Your task to perform on an android device: When is my next appointment? Image 0: 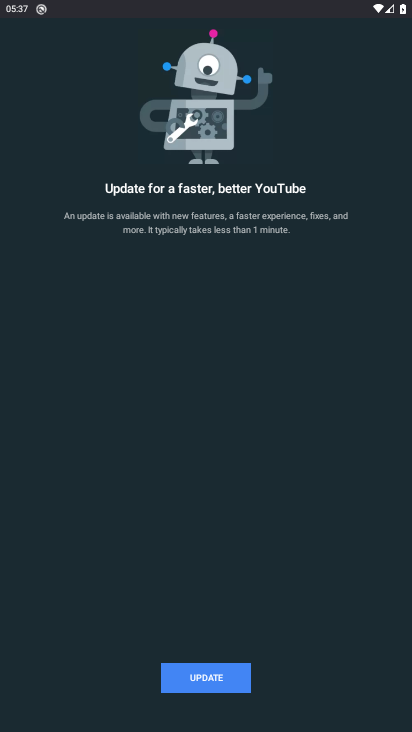
Step 0: press home button
Your task to perform on an android device: When is my next appointment? Image 1: 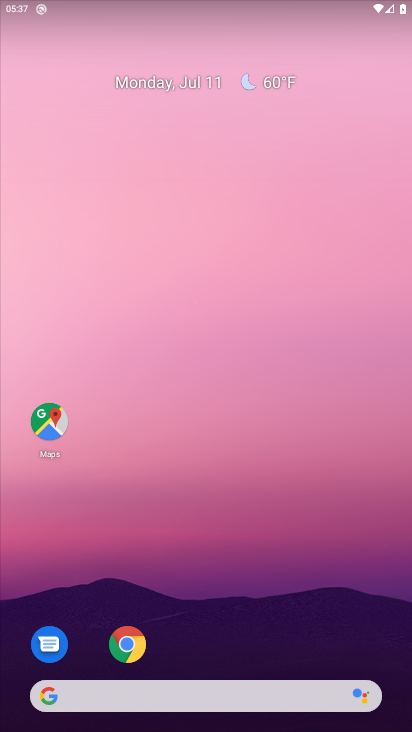
Step 1: drag from (179, 617) to (203, 448)
Your task to perform on an android device: When is my next appointment? Image 2: 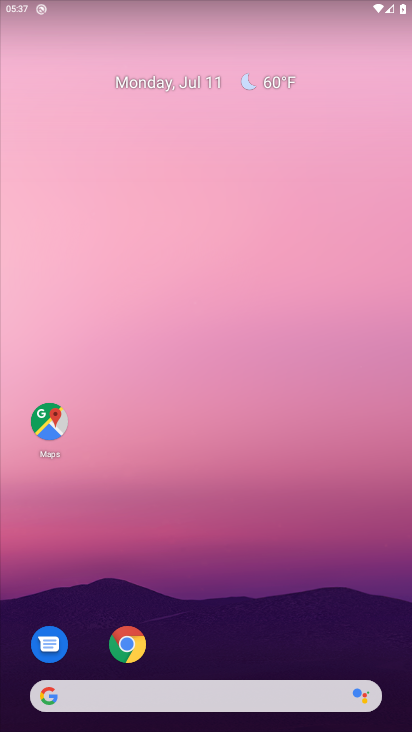
Step 2: drag from (240, 662) to (269, 281)
Your task to perform on an android device: When is my next appointment? Image 3: 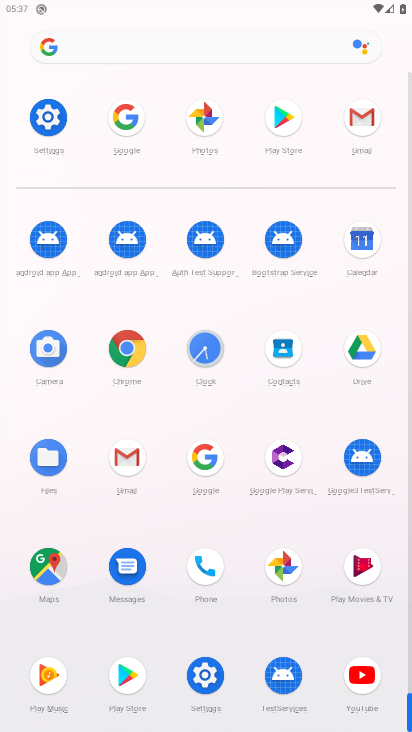
Step 3: click (369, 257)
Your task to perform on an android device: When is my next appointment? Image 4: 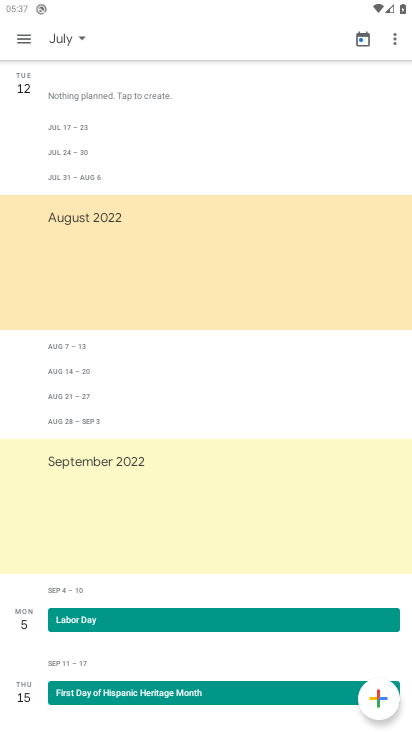
Step 4: click (68, 38)
Your task to perform on an android device: When is my next appointment? Image 5: 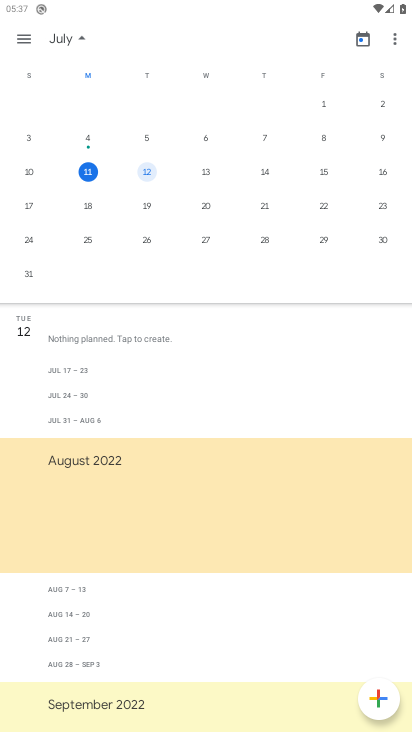
Step 5: click (22, 39)
Your task to perform on an android device: When is my next appointment? Image 6: 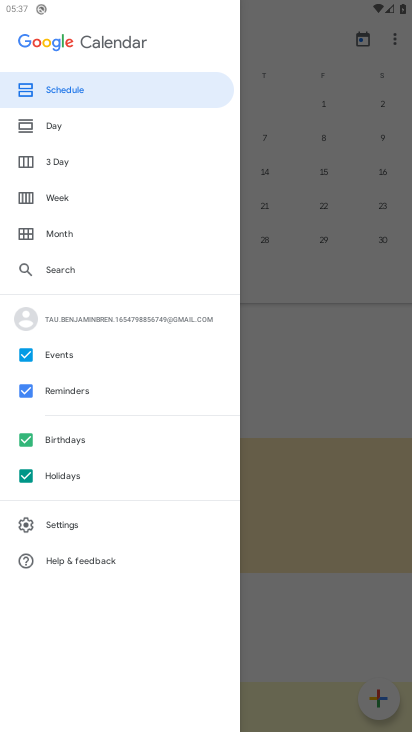
Step 6: click (71, 82)
Your task to perform on an android device: When is my next appointment? Image 7: 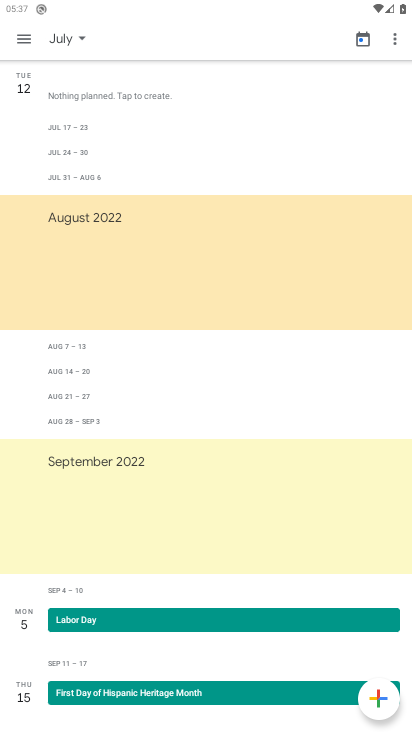
Step 7: task complete